Your task to perform on an android device: Go to sound settings Image 0: 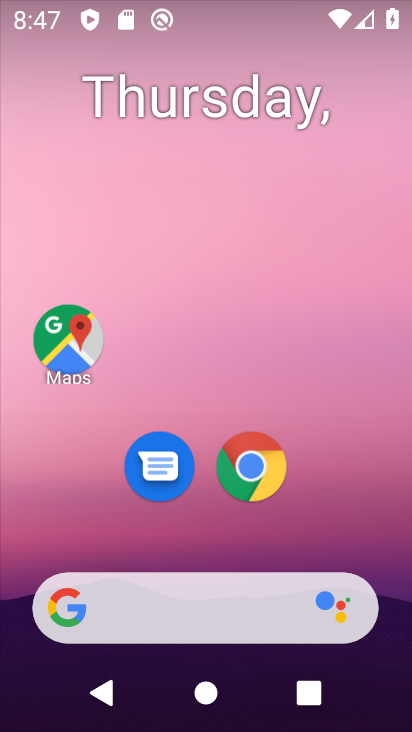
Step 0: drag from (155, 604) to (274, 256)
Your task to perform on an android device: Go to sound settings Image 1: 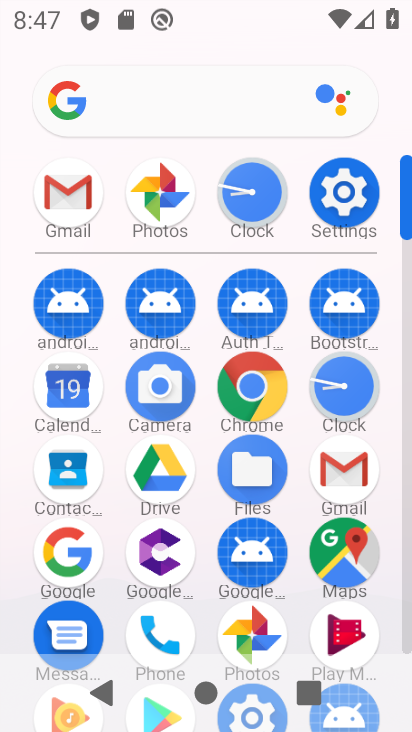
Step 1: click (334, 207)
Your task to perform on an android device: Go to sound settings Image 2: 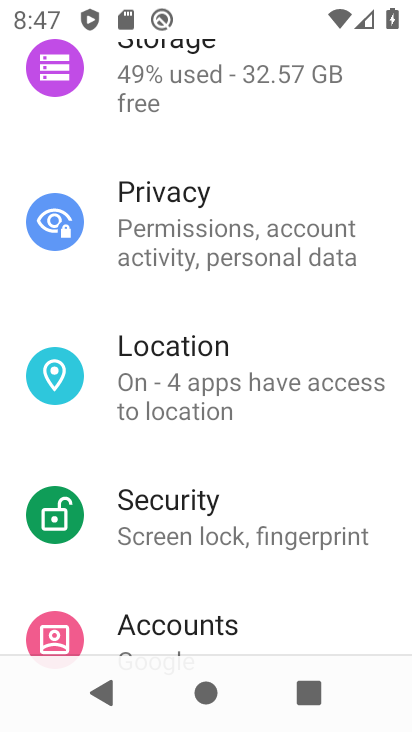
Step 2: drag from (268, 152) to (212, 554)
Your task to perform on an android device: Go to sound settings Image 3: 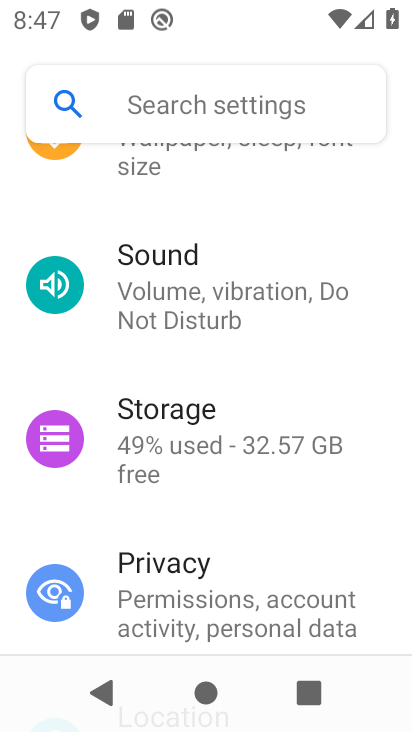
Step 3: click (185, 293)
Your task to perform on an android device: Go to sound settings Image 4: 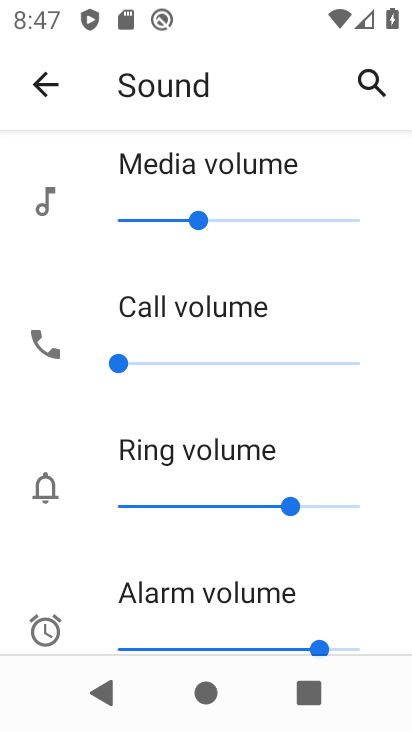
Step 4: task complete